Your task to perform on an android device: turn pop-ups on in chrome Image 0: 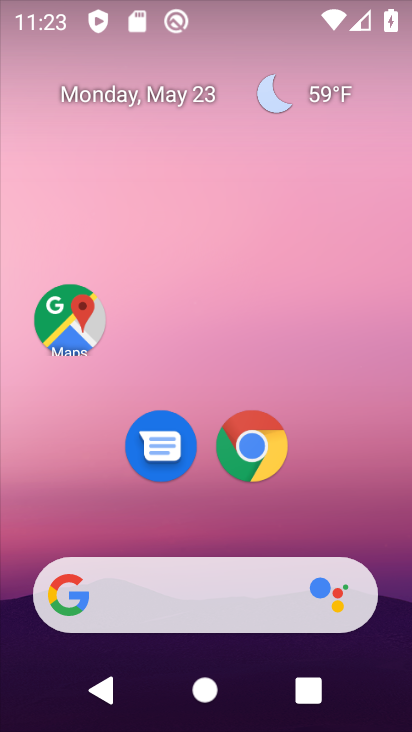
Step 0: click (256, 447)
Your task to perform on an android device: turn pop-ups on in chrome Image 1: 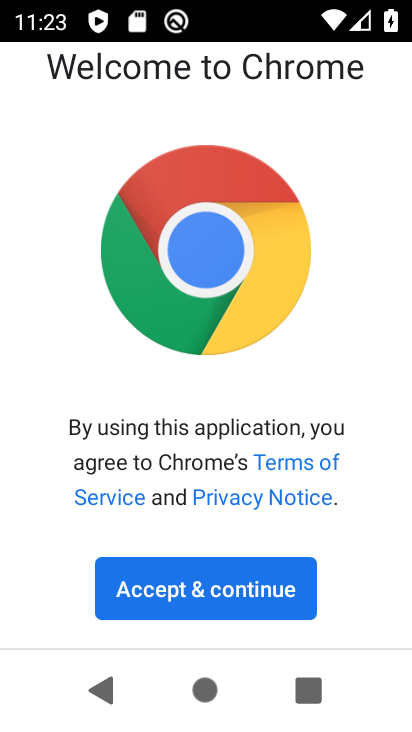
Step 1: click (230, 578)
Your task to perform on an android device: turn pop-ups on in chrome Image 2: 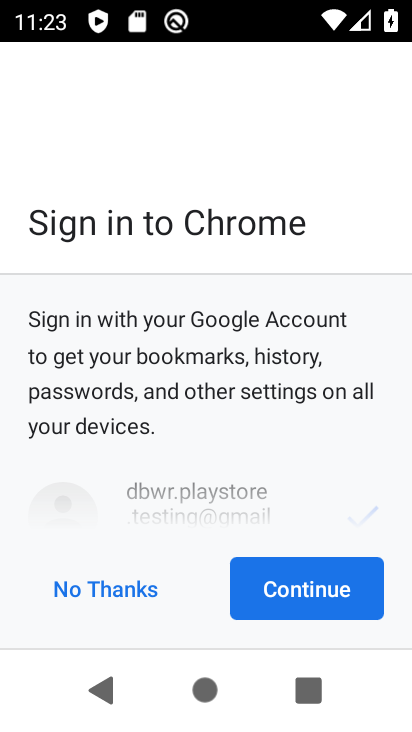
Step 2: click (284, 586)
Your task to perform on an android device: turn pop-ups on in chrome Image 3: 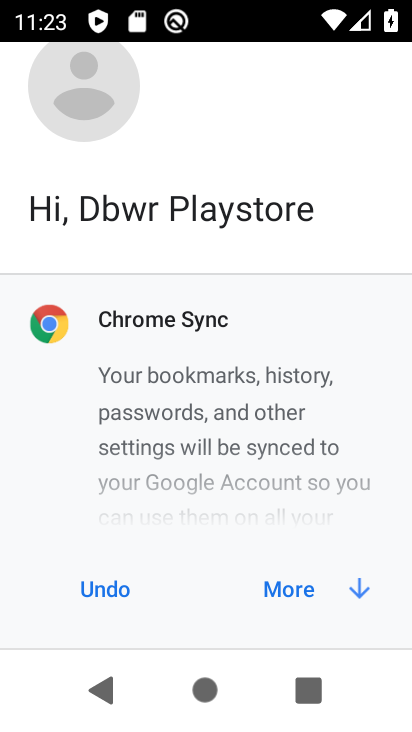
Step 3: click (275, 595)
Your task to perform on an android device: turn pop-ups on in chrome Image 4: 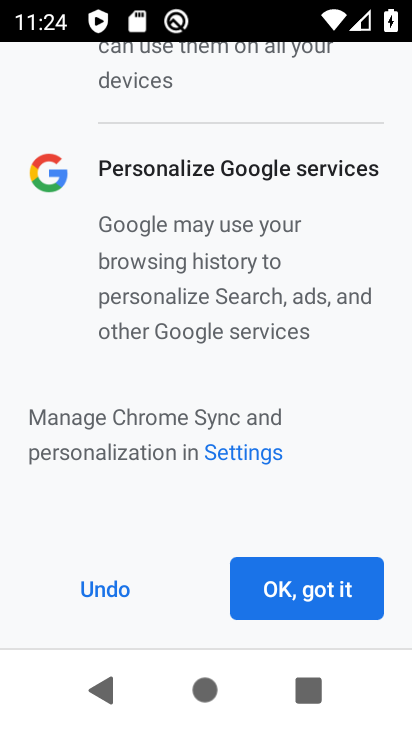
Step 4: click (276, 598)
Your task to perform on an android device: turn pop-ups on in chrome Image 5: 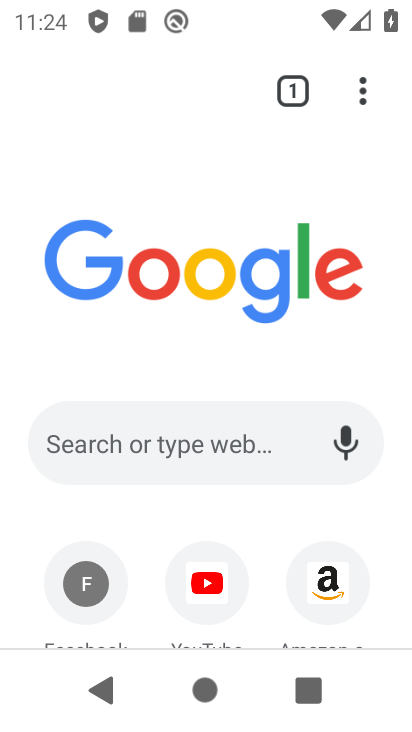
Step 5: click (363, 100)
Your task to perform on an android device: turn pop-ups on in chrome Image 6: 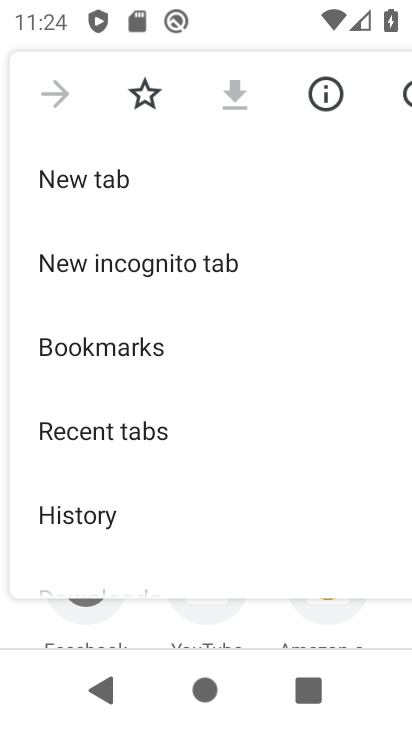
Step 6: drag from (91, 542) to (120, 191)
Your task to perform on an android device: turn pop-ups on in chrome Image 7: 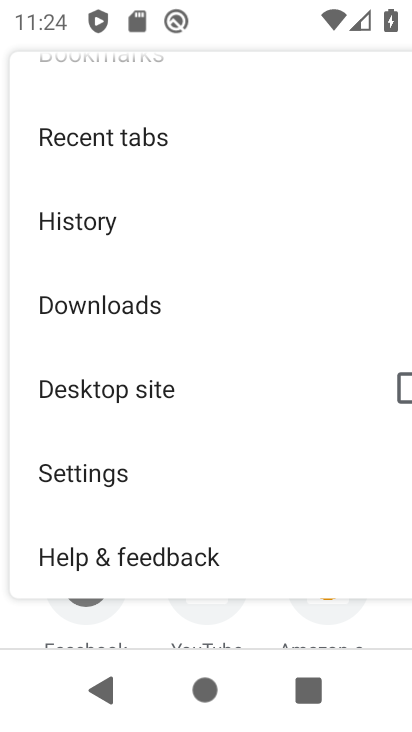
Step 7: click (101, 465)
Your task to perform on an android device: turn pop-ups on in chrome Image 8: 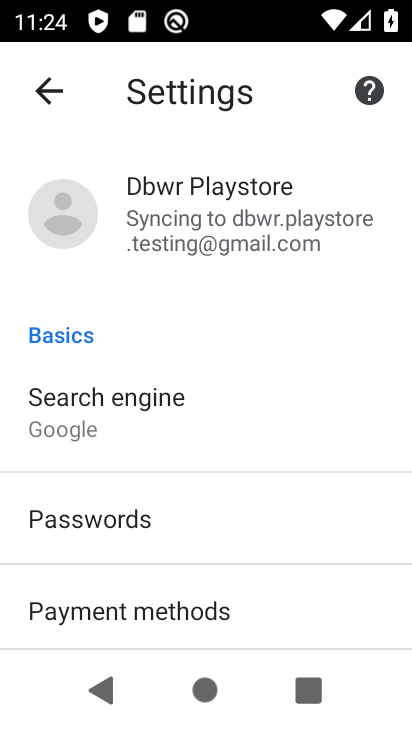
Step 8: drag from (86, 594) to (107, 166)
Your task to perform on an android device: turn pop-ups on in chrome Image 9: 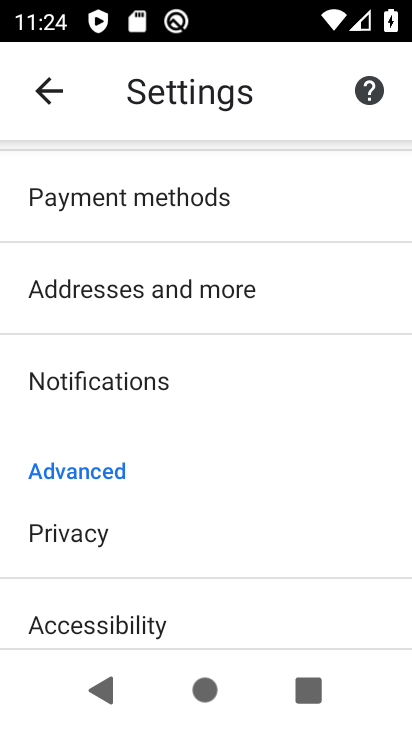
Step 9: drag from (77, 603) to (96, 311)
Your task to perform on an android device: turn pop-ups on in chrome Image 10: 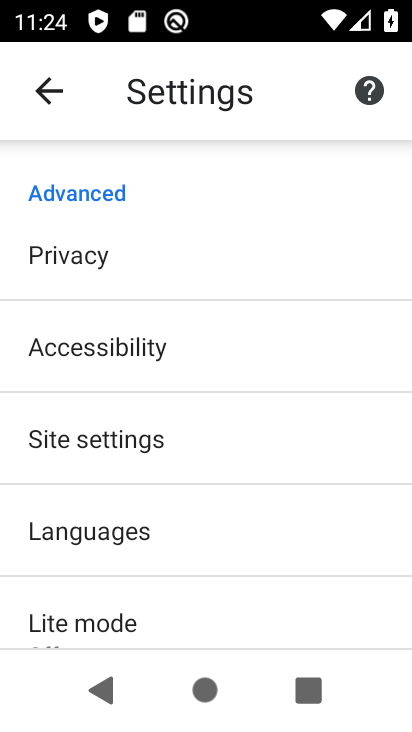
Step 10: click (128, 448)
Your task to perform on an android device: turn pop-ups on in chrome Image 11: 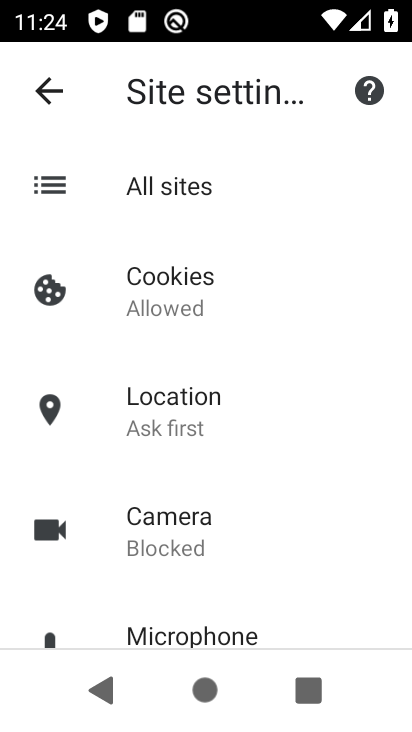
Step 11: drag from (191, 550) to (243, 96)
Your task to perform on an android device: turn pop-ups on in chrome Image 12: 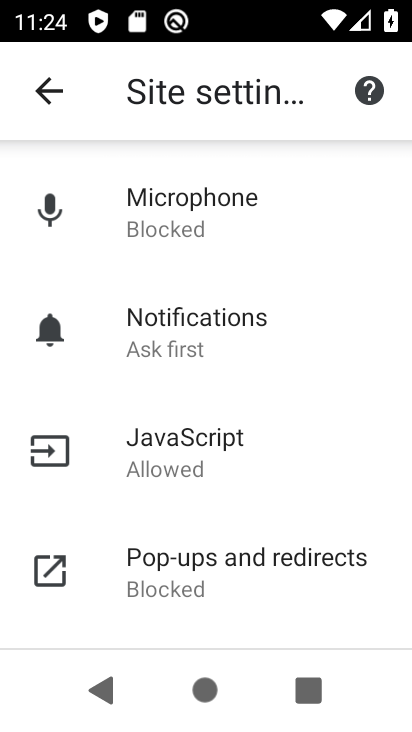
Step 12: click (224, 608)
Your task to perform on an android device: turn pop-ups on in chrome Image 13: 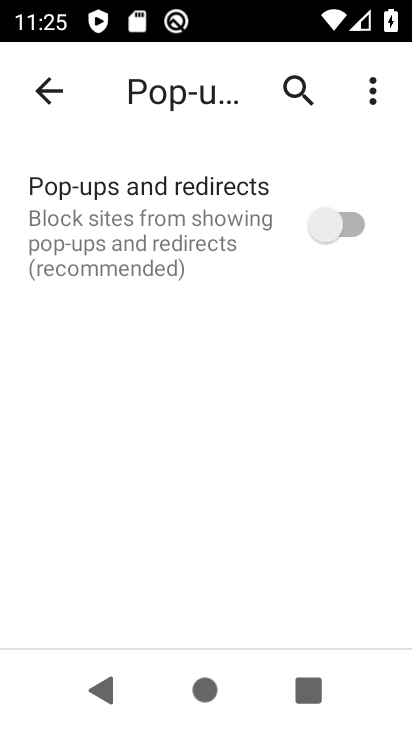
Step 13: click (349, 214)
Your task to perform on an android device: turn pop-ups on in chrome Image 14: 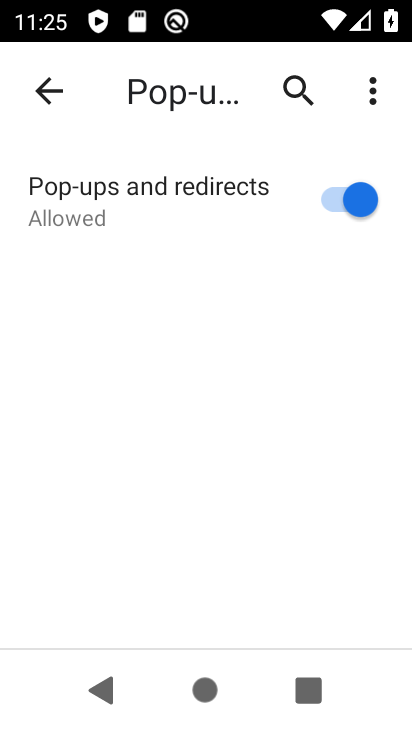
Step 14: task complete